Your task to perform on an android device: clear history in the chrome app Image 0: 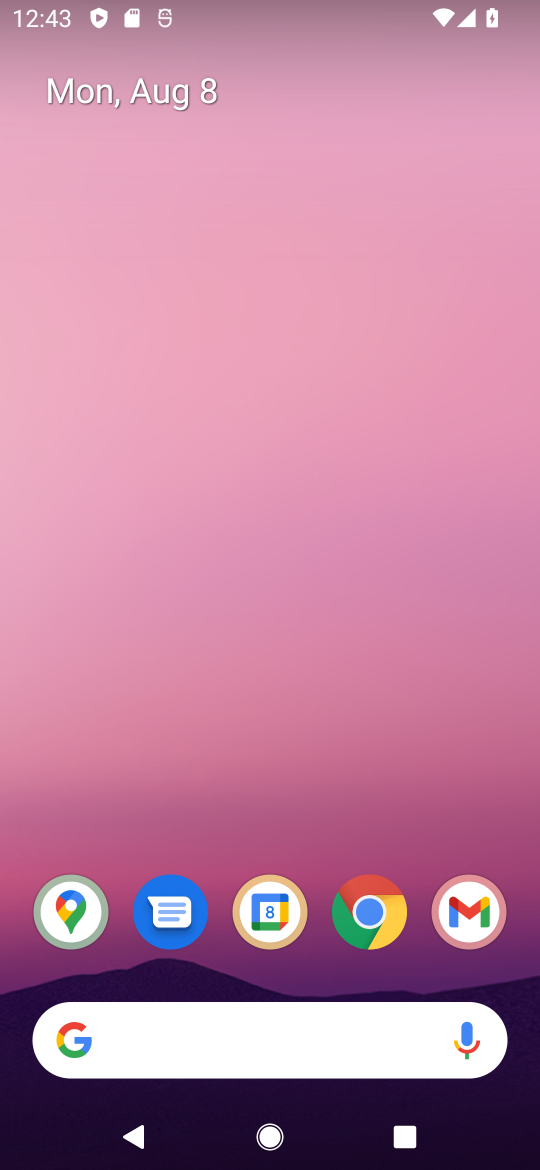
Step 0: click (390, 923)
Your task to perform on an android device: clear history in the chrome app Image 1: 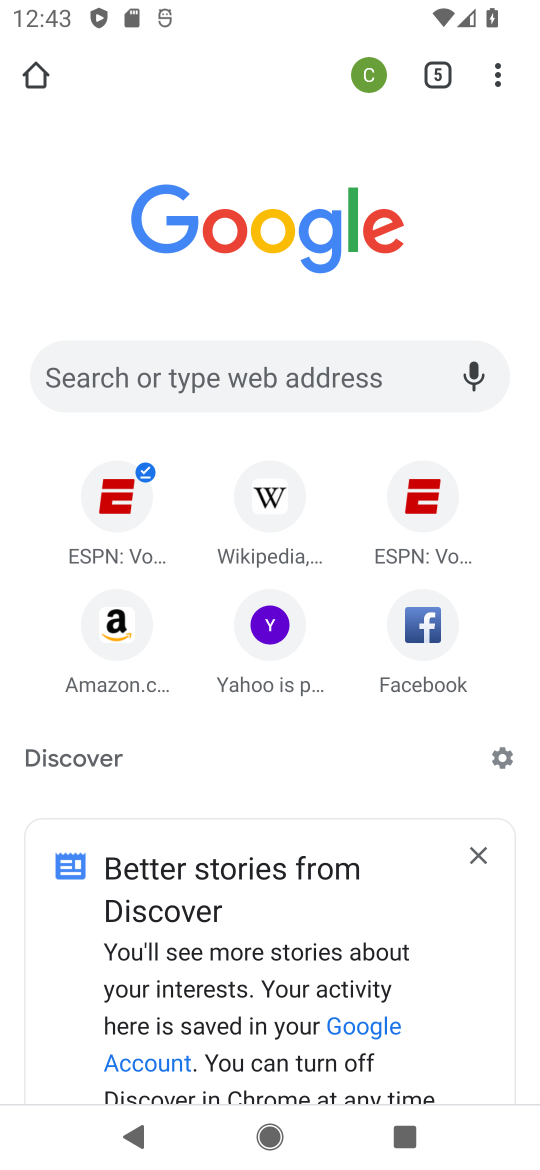
Step 1: drag from (491, 77) to (253, 401)
Your task to perform on an android device: clear history in the chrome app Image 2: 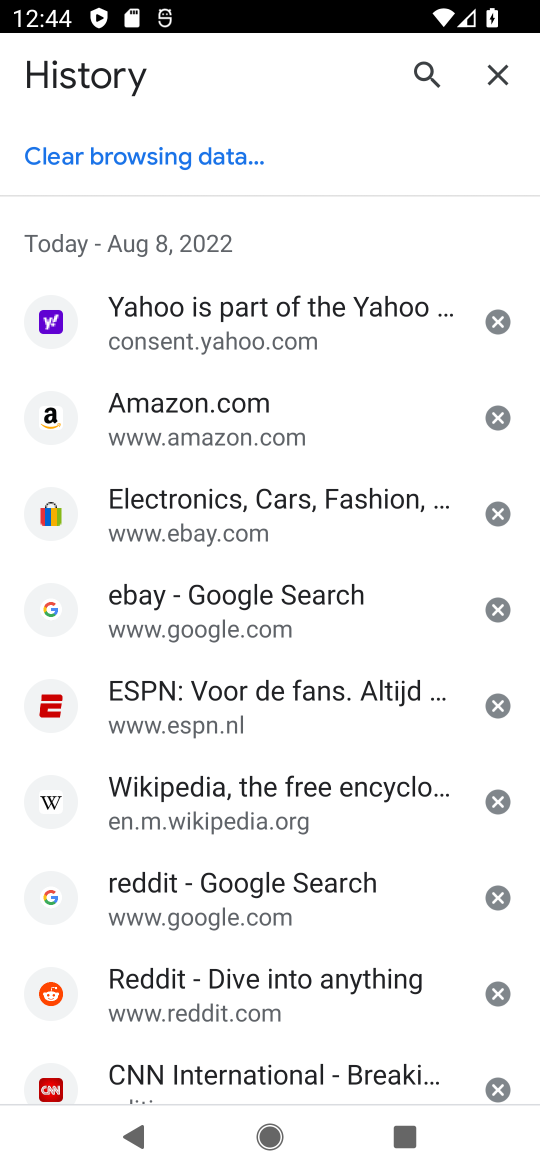
Step 2: click (188, 157)
Your task to perform on an android device: clear history in the chrome app Image 3: 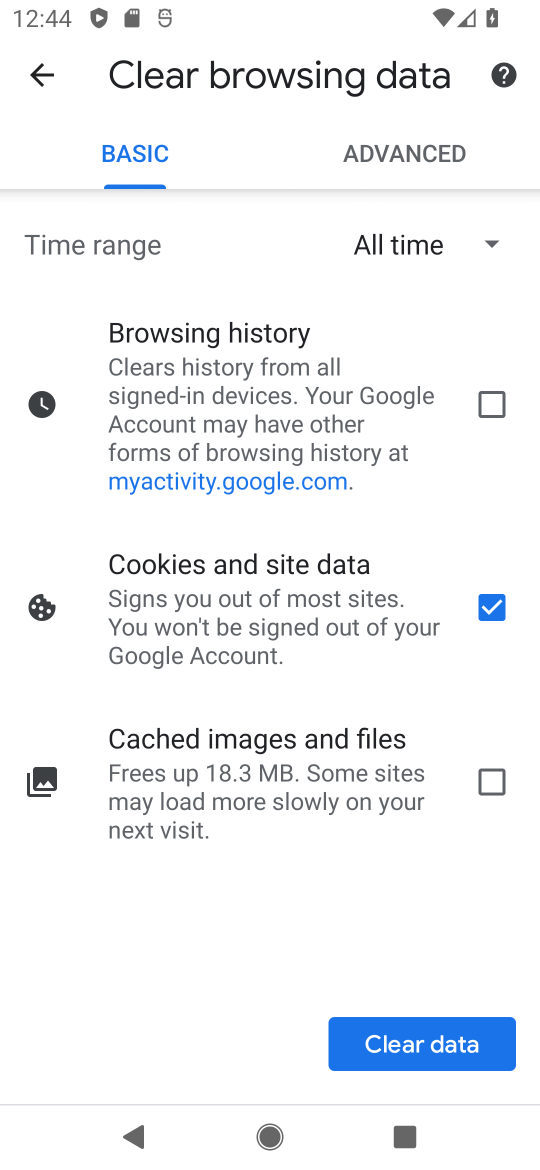
Step 3: click (495, 408)
Your task to perform on an android device: clear history in the chrome app Image 4: 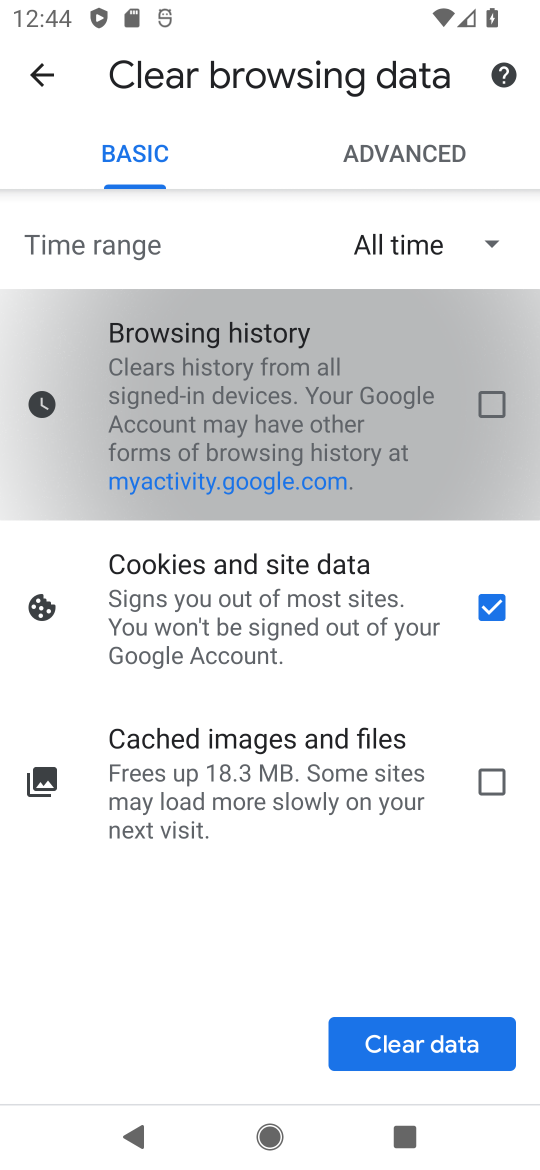
Step 4: click (490, 772)
Your task to perform on an android device: clear history in the chrome app Image 5: 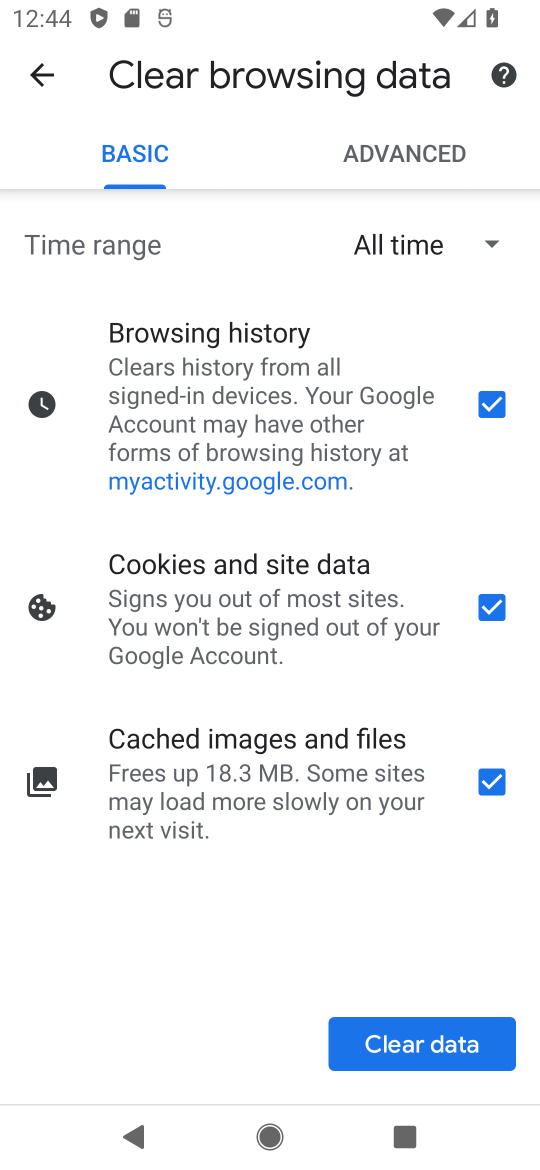
Step 5: click (451, 1047)
Your task to perform on an android device: clear history in the chrome app Image 6: 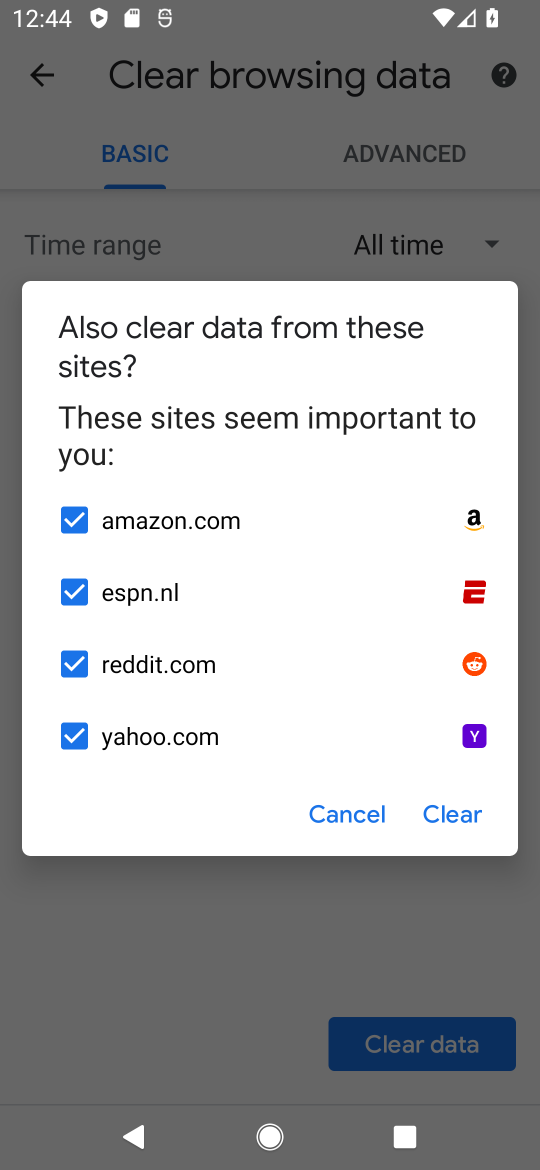
Step 6: click (451, 804)
Your task to perform on an android device: clear history in the chrome app Image 7: 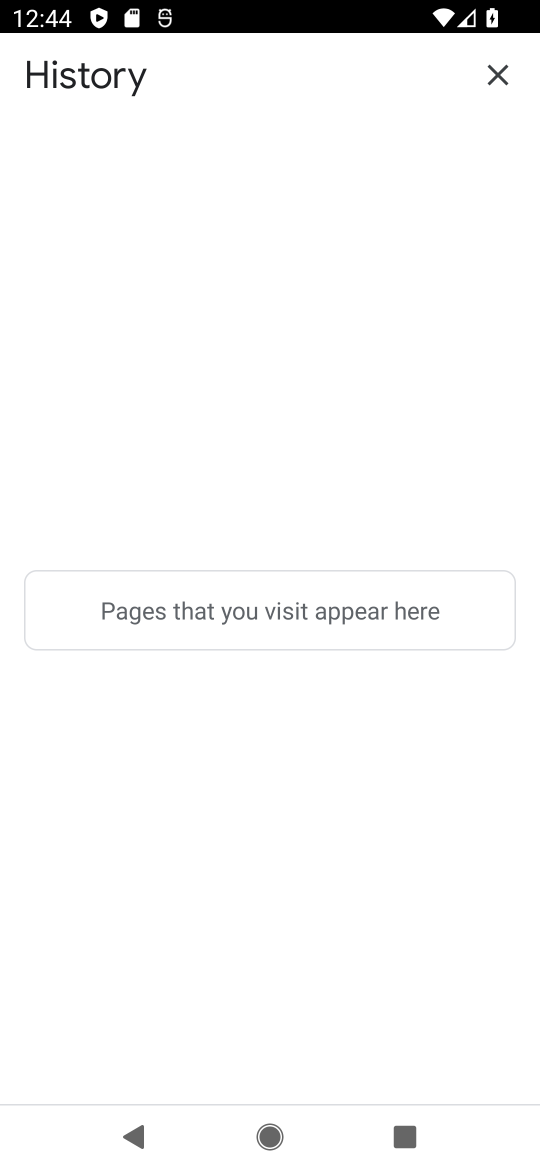
Step 7: task complete